Your task to perform on an android device: Open settings Image 0: 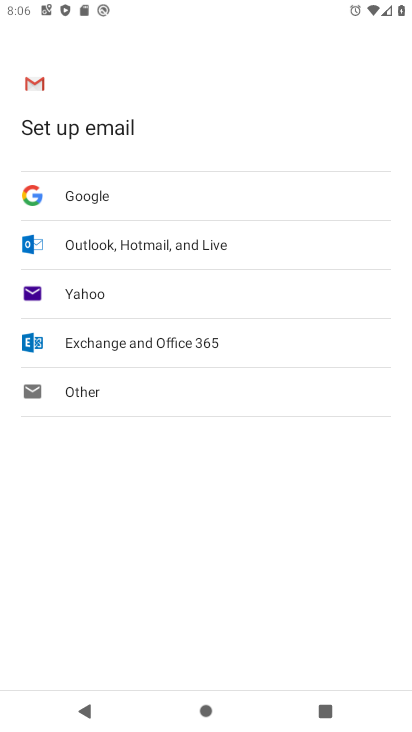
Step 0: press home button
Your task to perform on an android device: Open settings Image 1: 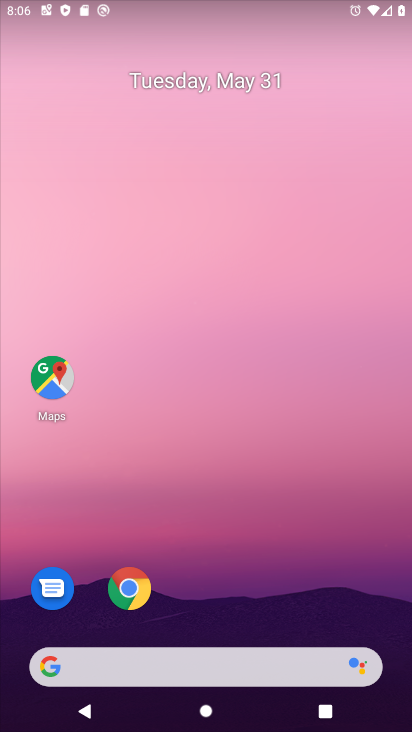
Step 1: drag from (220, 624) to (285, 169)
Your task to perform on an android device: Open settings Image 2: 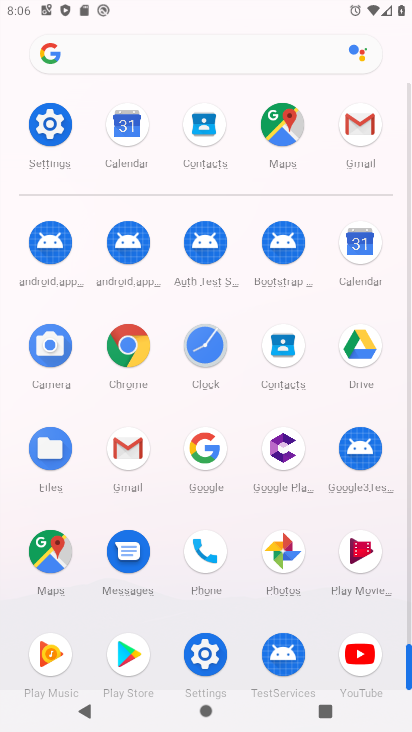
Step 2: click (210, 647)
Your task to perform on an android device: Open settings Image 3: 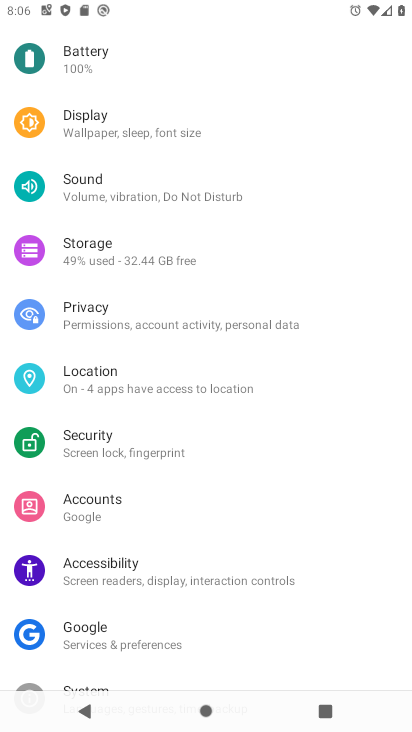
Step 3: task complete